Your task to perform on an android device: Set the phone to "Do not disturb". Image 0: 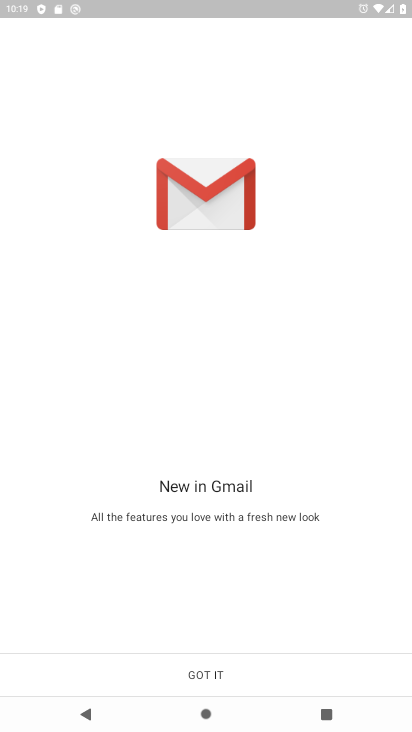
Step 0: press home button
Your task to perform on an android device: Set the phone to "Do not disturb". Image 1: 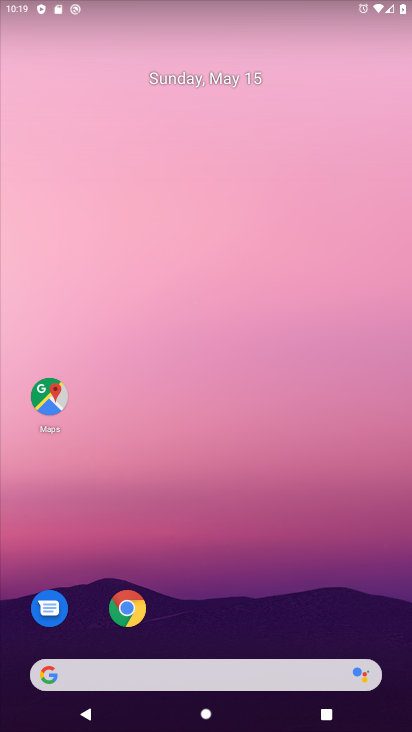
Step 1: drag from (344, 611) to (308, 161)
Your task to perform on an android device: Set the phone to "Do not disturb". Image 2: 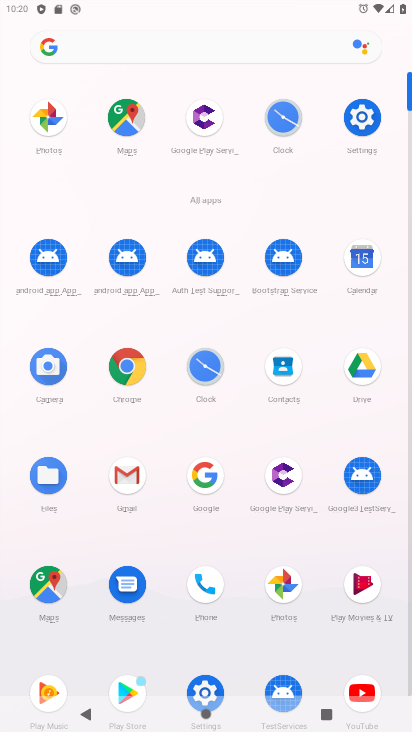
Step 2: click (368, 127)
Your task to perform on an android device: Set the phone to "Do not disturb". Image 3: 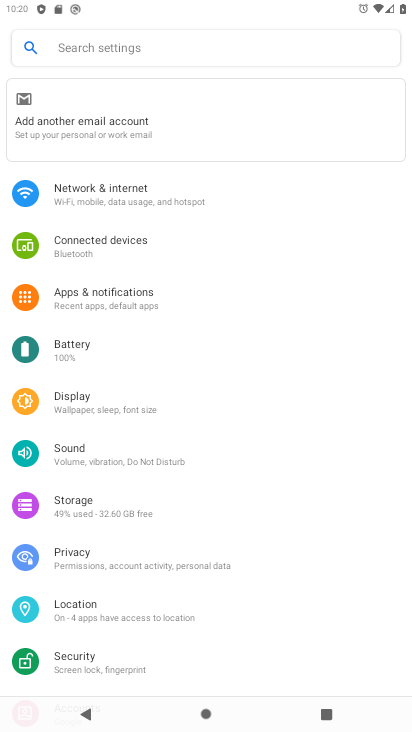
Step 3: click (272, 371)
Your task to perform on an android device: Set the phone to "Do not disturb". Image 4: 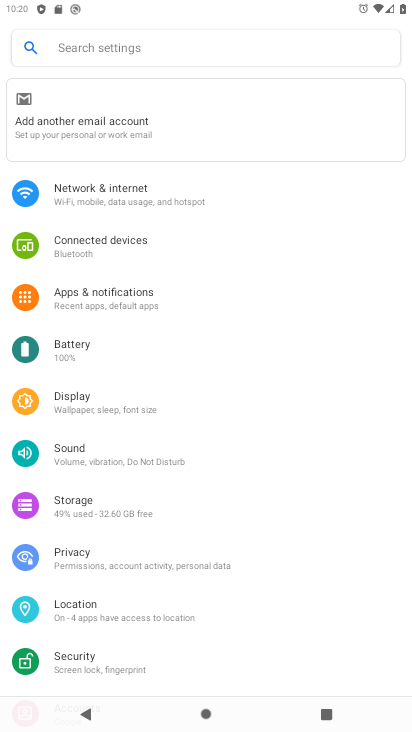
Step 4: click (130, 467)
Your task to perform on an android device: Set the phone to "Do not disturb". Image 5: 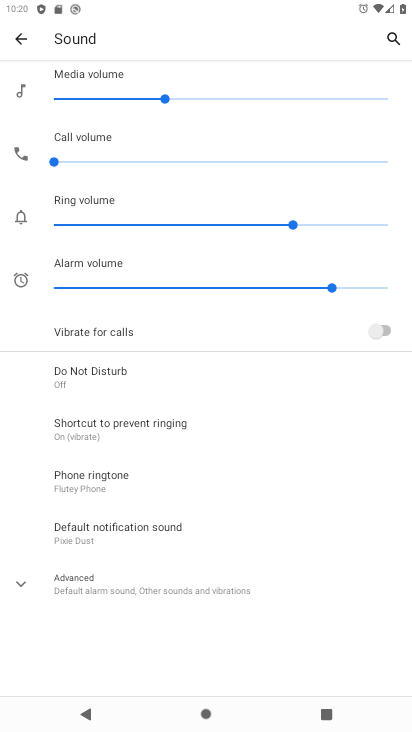
Step 5: click (134, 370)
Your task to perform on an android device: Set the phone to "Do not disturb". Image 6: 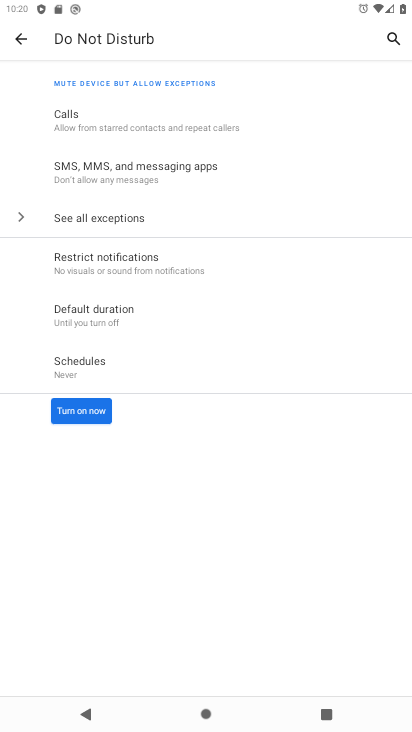
Step 6: click (86, 419)
Your task to perform on an android device: Set the phone to "Do not disturb". Image 7: 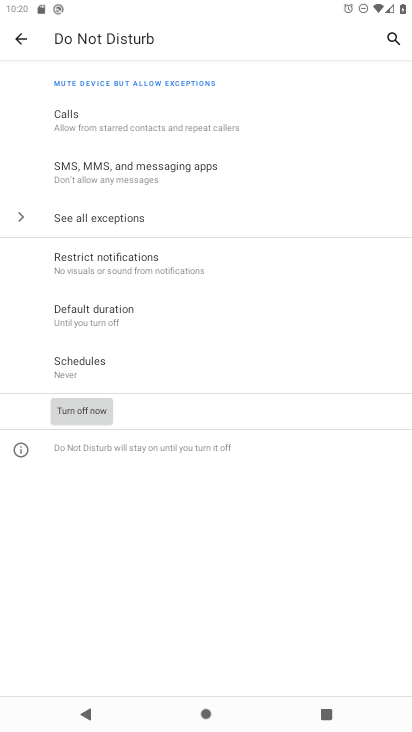
Step 7: task complete